Your task to perform on an android device: refresh tabs in the chrome app Image 0: 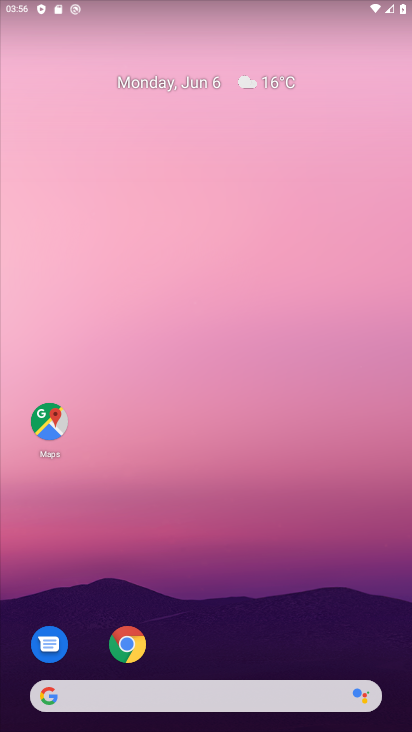
Step 0: click (133, 650)
Your task to perform on an android device: refresh tabs in the chrome app Image 1: 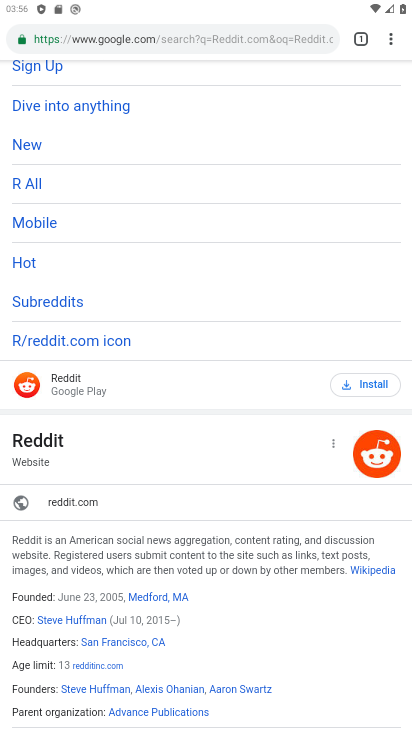
Step 1: click (389, 37)
Your task to perform on an android device: refresh tabs in the chrome app Image 2: 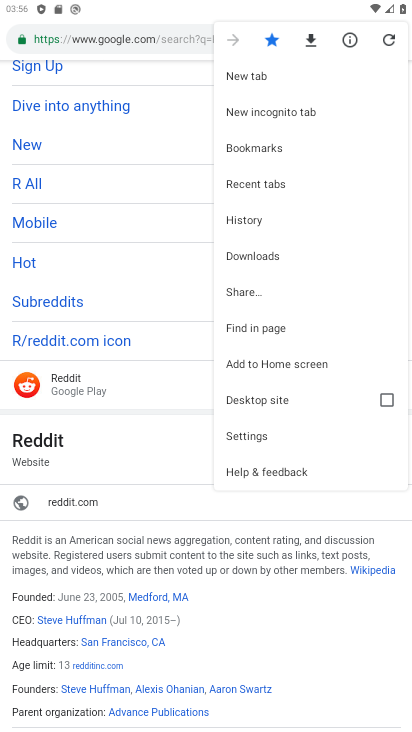
Step 2: click (385, 42)
Your task to perform on an android device: refresh tabs in the chrome app Image 3: 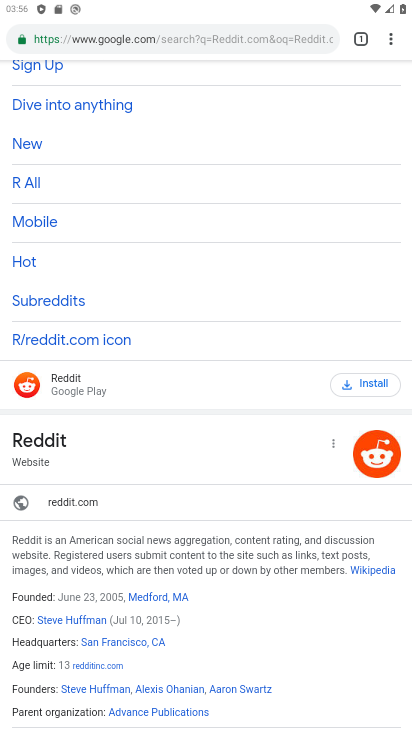
Step 3: task complete